Your task to perform on an android device: Open settings Image 0: 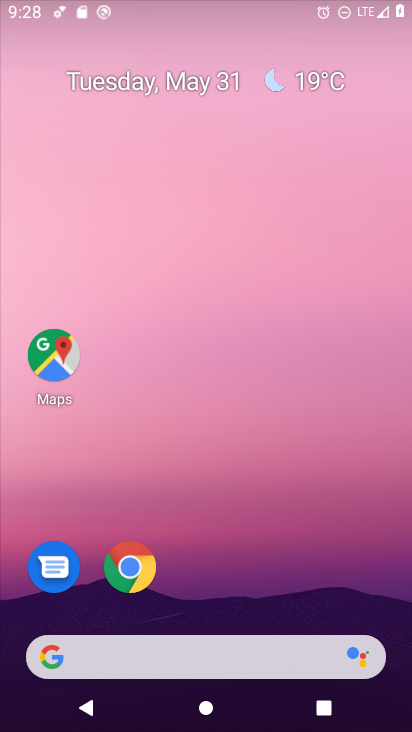
Step 0: drag from (212, 490) to (212, 268)
Your task to perform on an android device: Open settings Image 1: 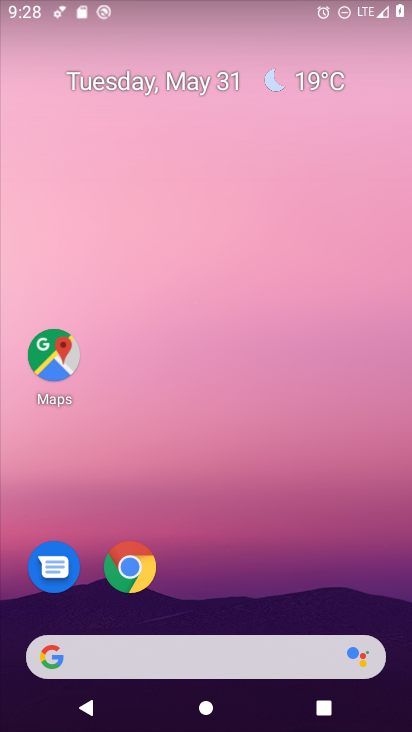
Step 1: drag from (188, 641) to (177, 208)
Your task to perform on an android device: Open settings Image 2: 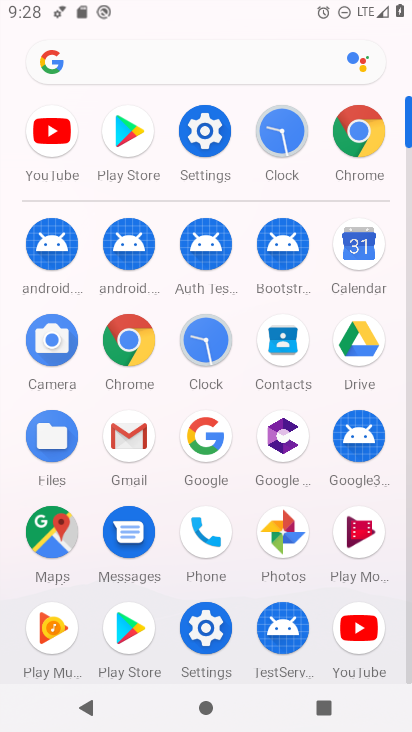
Step 2: click (193, 112)
Your task to perform on an android device: Open settings Image 3: 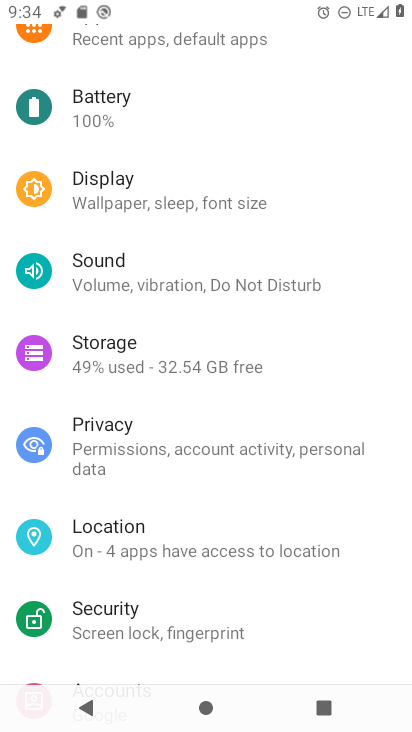
Step 3: task complete